Your task to perform on an android device: Search for the best 4K TV Image 0: 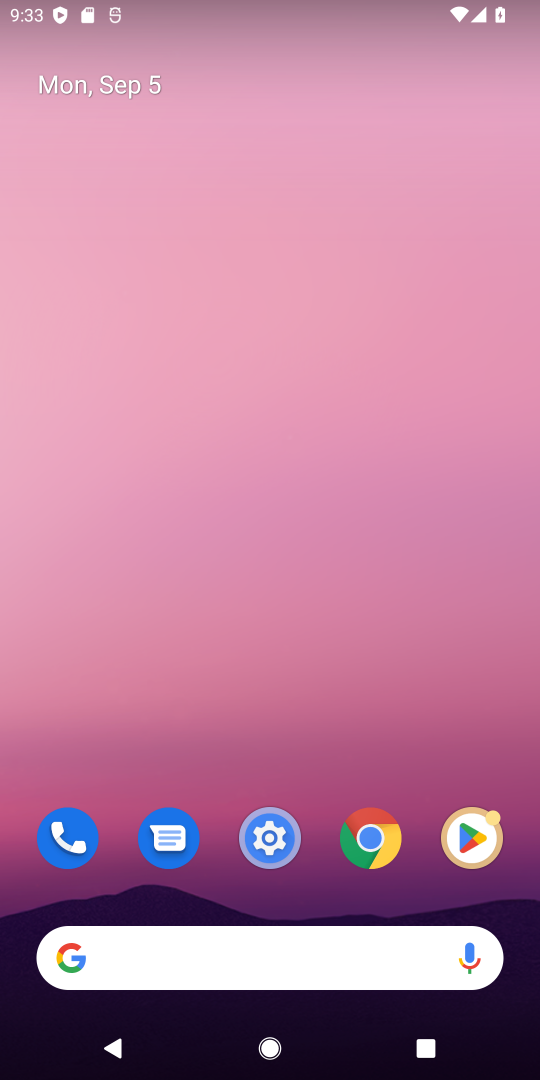
Step 0: click (185, 950)
Your task to perform on an android device: Search for the best 4K TV Image 1: 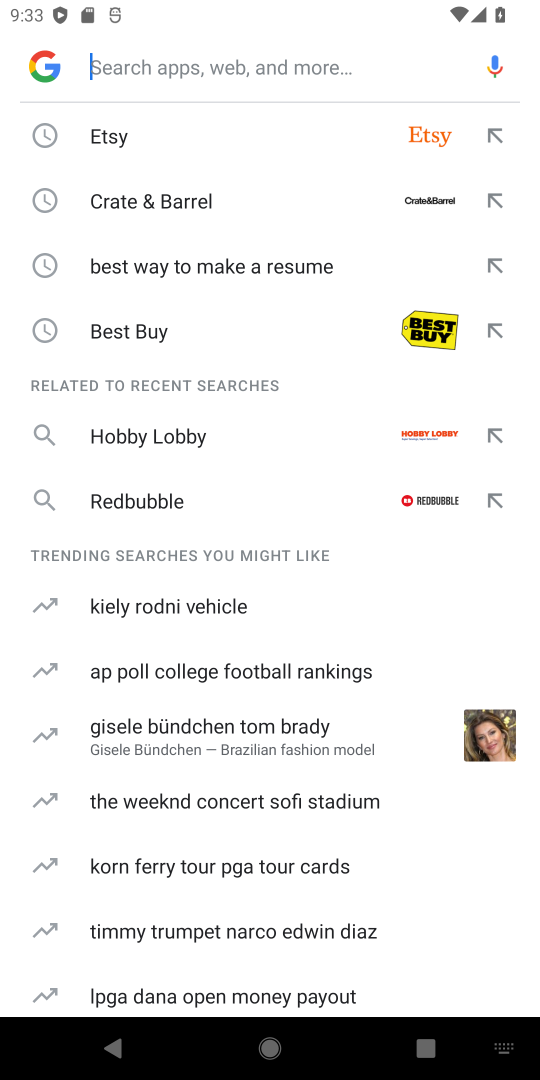
Step 1: type " best 4K TV"
Your task to perform on an android device: Search for the best 4K TV Image 2: 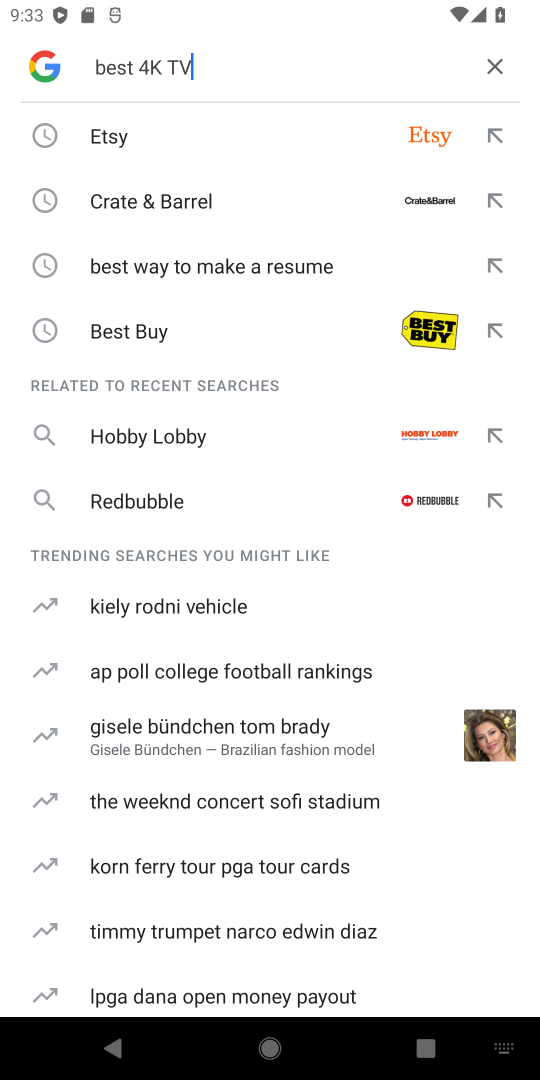
Step 2: type ""
Your task to perform on an android device: Search for the best 4K TV Image 3: 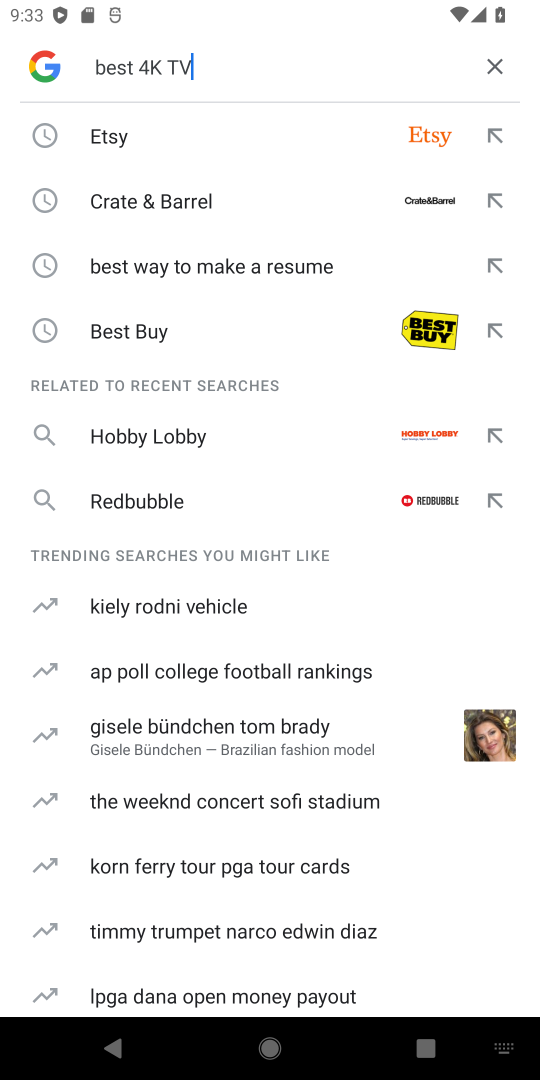
Step 3: click (274, 62)
Your task to perform on an android device: Search for the best 4K TV Image 4: 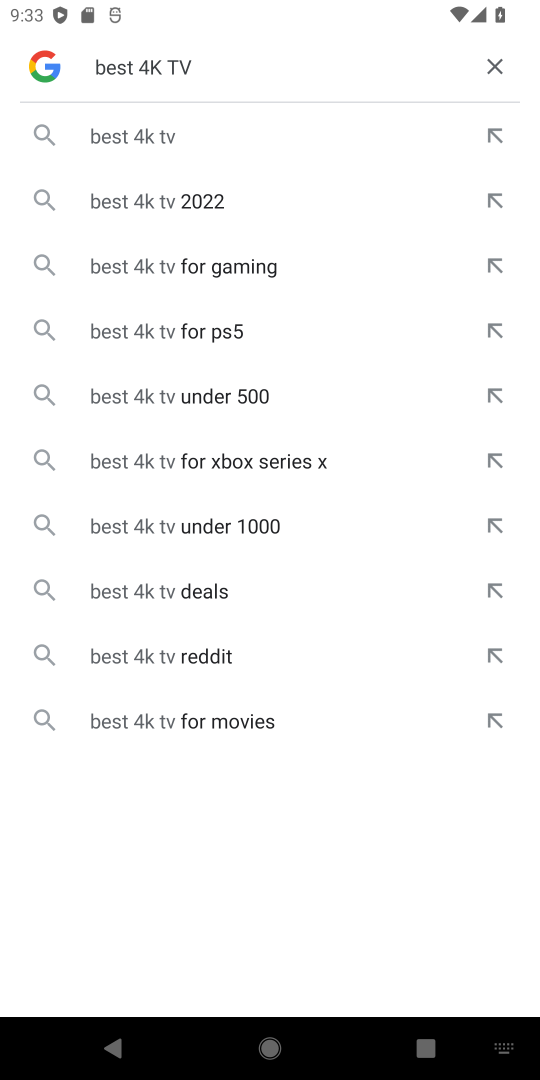
Step 4: click (150, 70)
Your task to perform on an android device: Search for the best 4K TV Image 5: 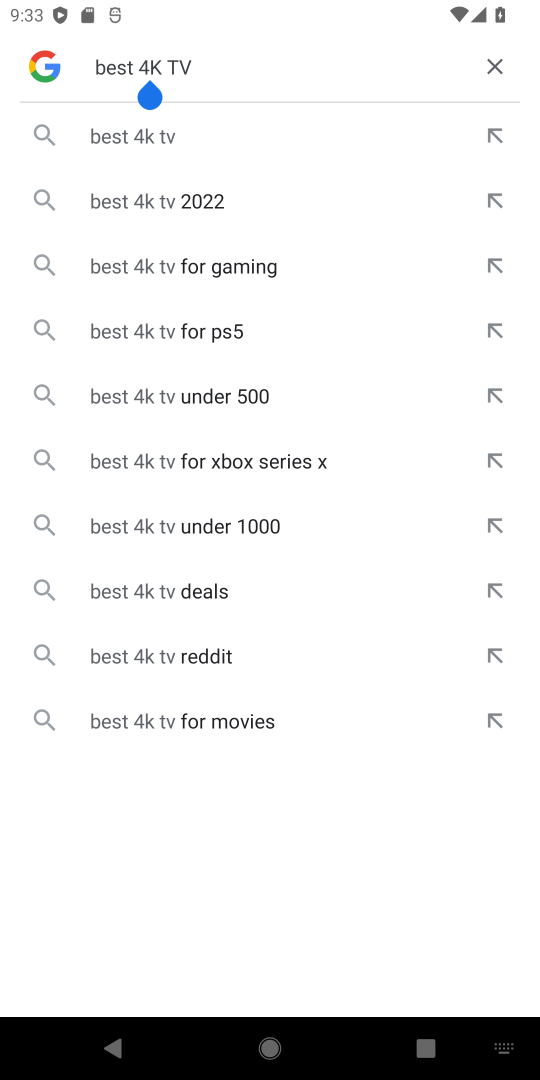
Step 5: click (238, 85)
Your task to perform on an android device: Search for the best 4K TV Image 6: 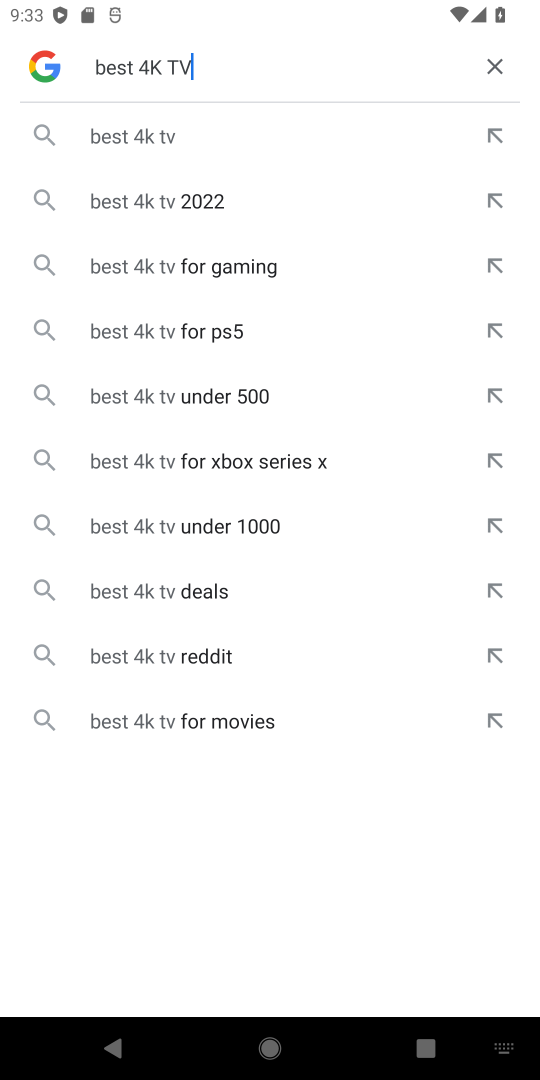
Step 6: click (179, 138)
Your task to perform on an android device: Search for the best 4K TV Image 7: 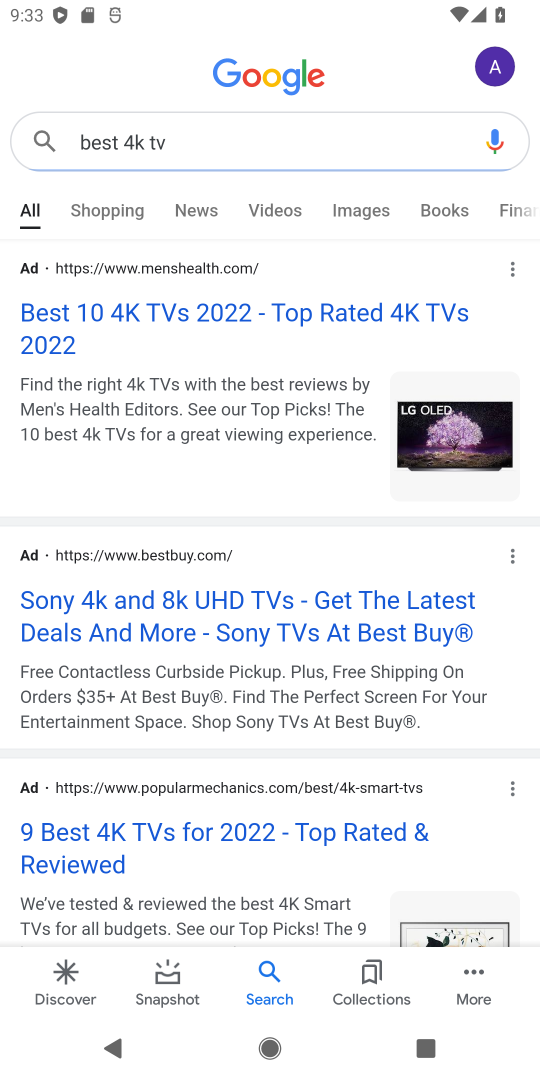
Step 7: task complete